Your task to perform on an android device: Open network settings Image 0: 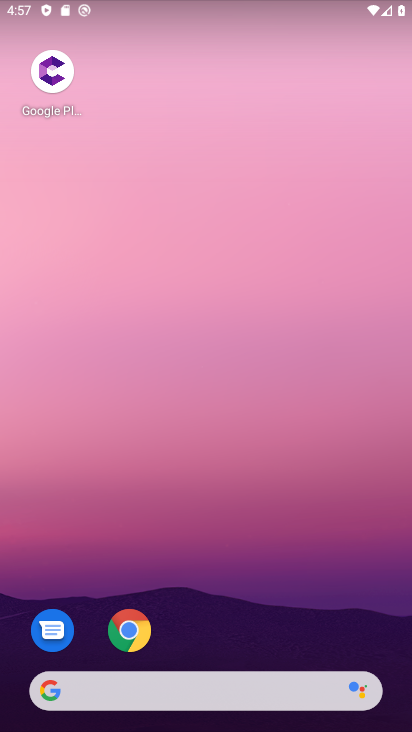
Step 0: drag from (190, 686) to (397, 1)
Your task to perform on an android device: Open network settings Image 1: 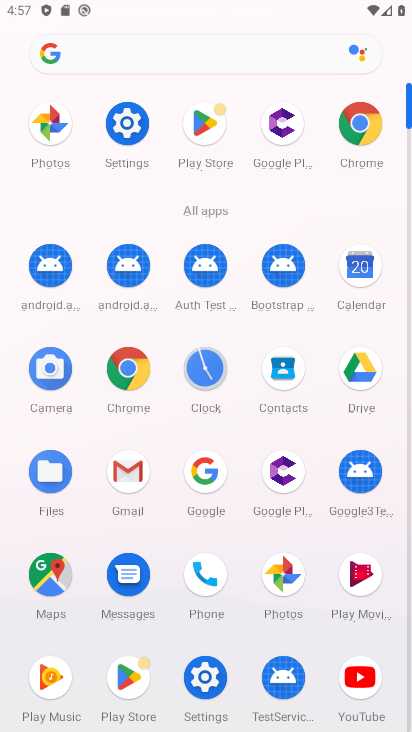
Step 1: click (116, 108)
Your task to perform on an android device: Open network settings Image 2: 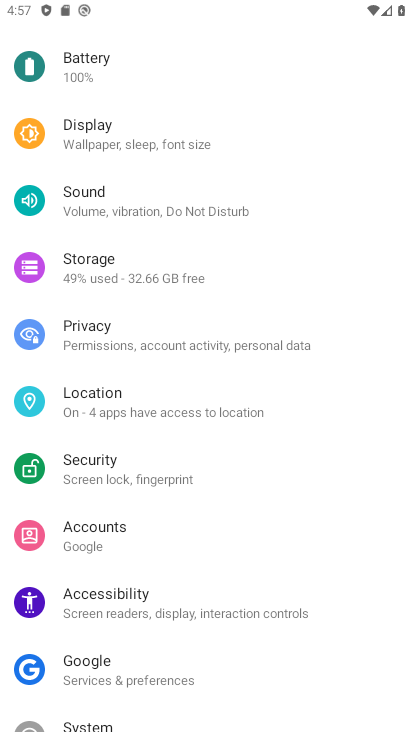
Step 2: drag from (121, 119) to (123, 560)
Your task to perform on an android device: Open network settings Image 3: 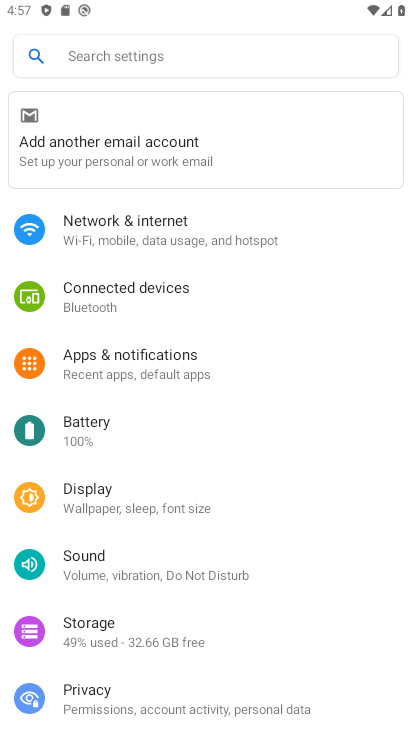
Step 3: click (133, 225)
Your task to perform on an android device: Open network settings Image 4: 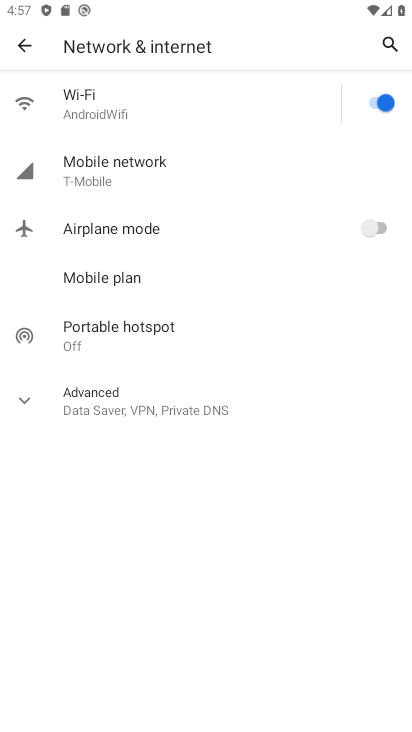
Step 4: task complete